Your task to perform on an android device: Open internet settings Image 0: 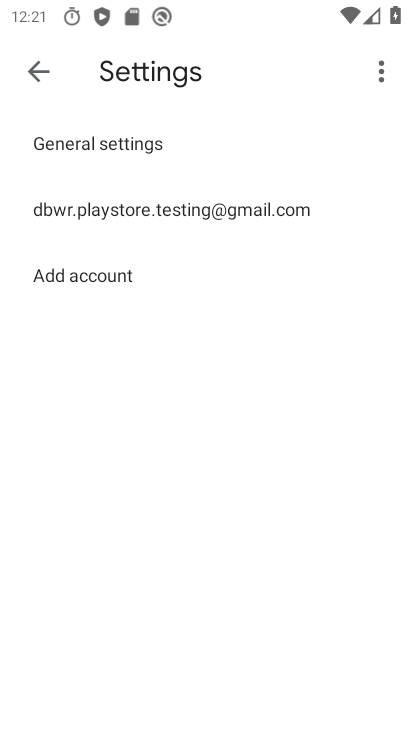
Step 0: press home button
Your task to perform on an android device: Open internet settings Image 1: 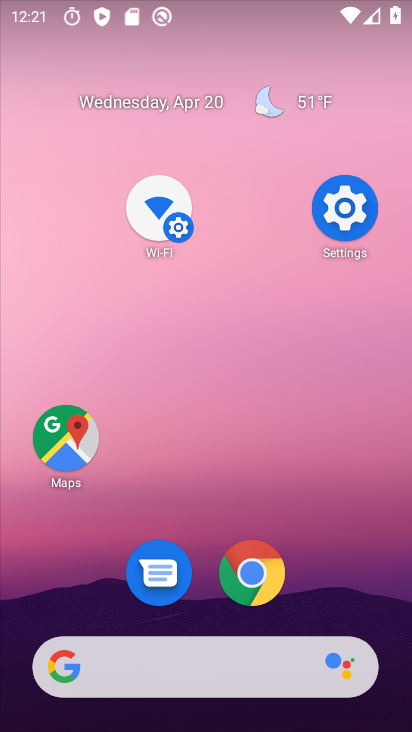
Step 1: click (339, 212)
Your task to perform on an android device: Open internet settings Image 2: 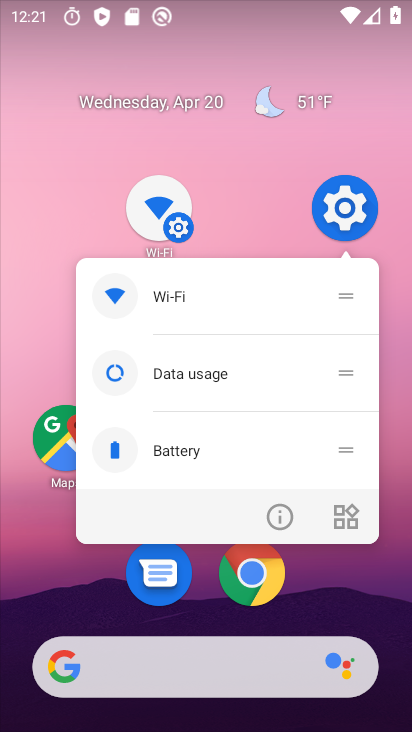
Step 2: click (348, 216)
Your task to perform on an android device: Open internet settings Image 3: 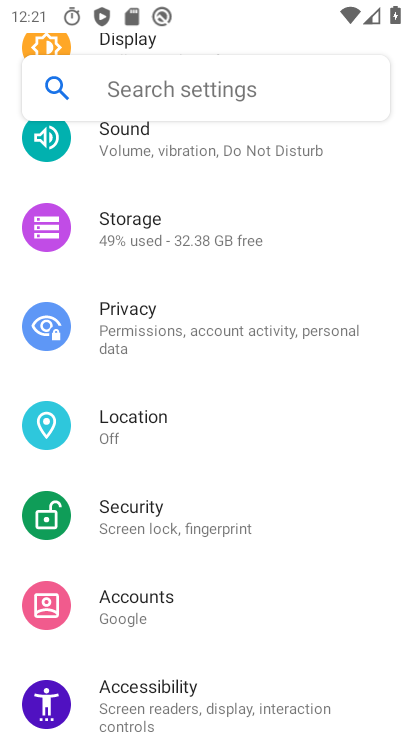
Step 3: drag from (289, 291) to (281, 662)
Your task to perform on an android device: Open internet settings Image 4: 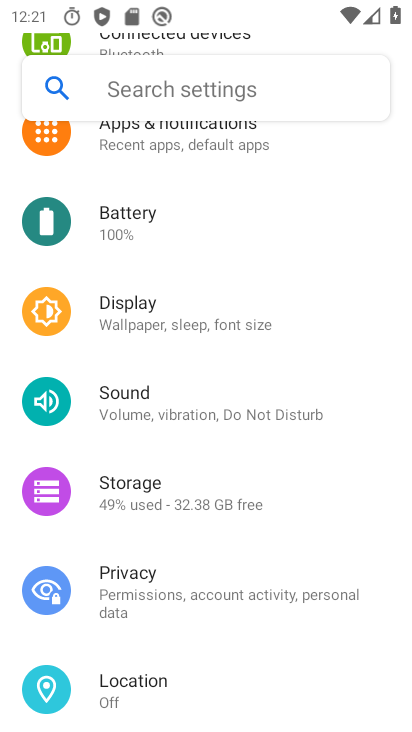
Step 4: drag from (296, 312) to (279, 626)
Your task to perform on an android device: Open internet settings Image 5: 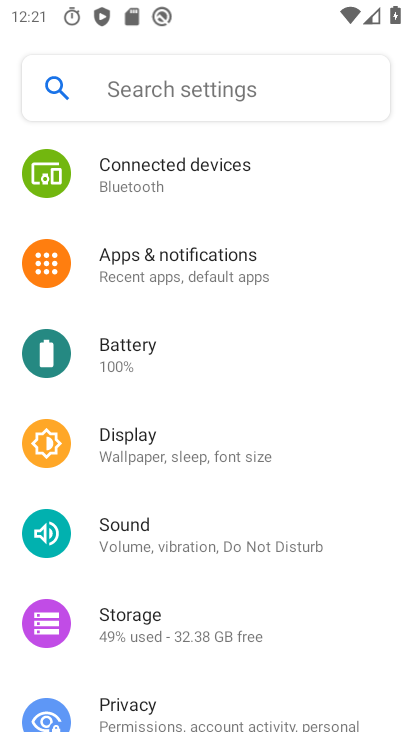
Step 5: drag from (309, 252) to (291, 593)
Your task to perform on an android device: Open internet settings Image 6: 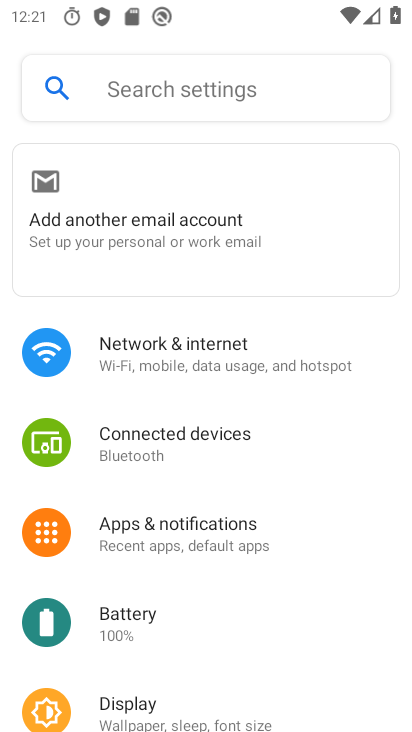
Step 6: click (245, 368)
Your task to perform on an android device: Open internet settings Image 7: 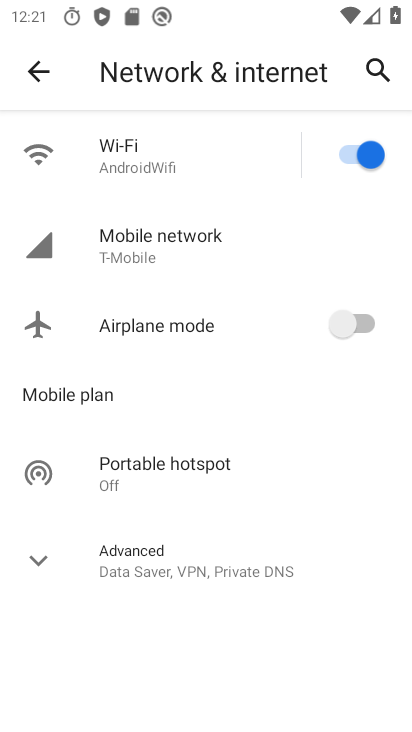
Step 7: task complete